Your task to perform on an android device: Go to eBay Image 0: 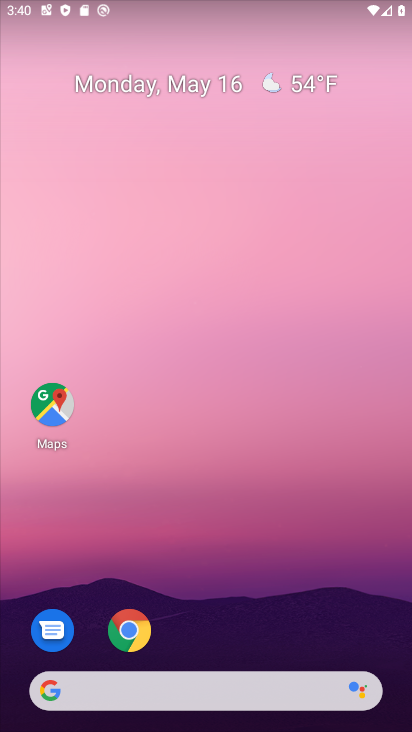
Step 0: click (141, 627)
Your task to perform on an android device: Go to eBay Image 1: 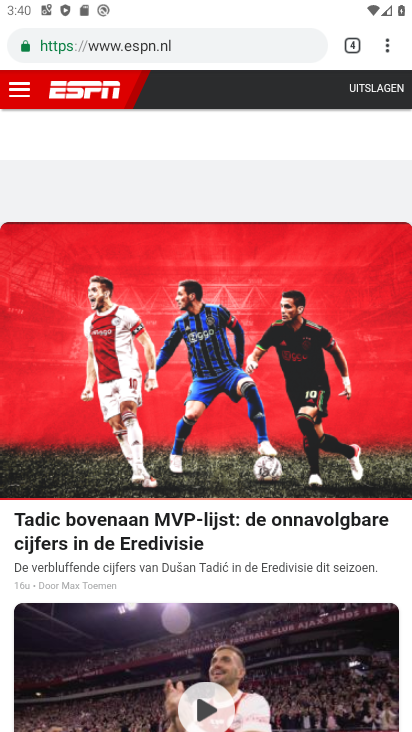
Step 1: click (221, 45)
Your task to perform on an android device: Go to eBay Image 2: 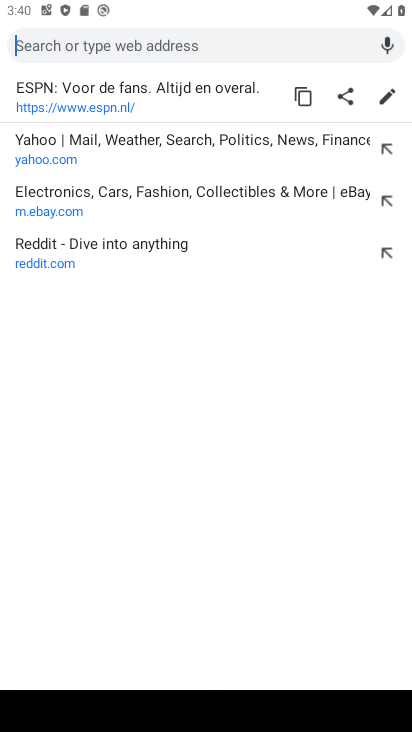
Step 2: type "ebay"
Your task to perform on an android device: Go to eBay Image 3: 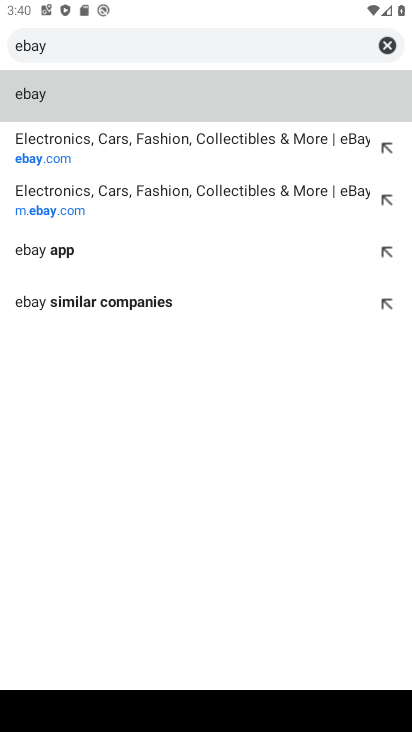
Step 3: click (125, 148)
Your task to perform on an android device: Go to eBay Image 4: 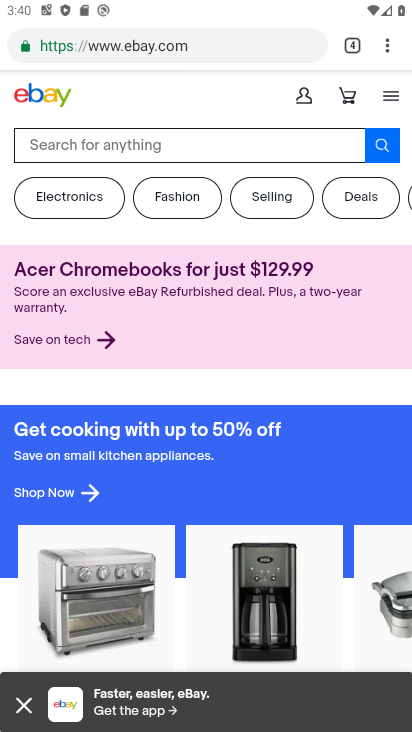
Step 4: task complete